Your task to perform on an android device: Open accessibility settings Image 0: 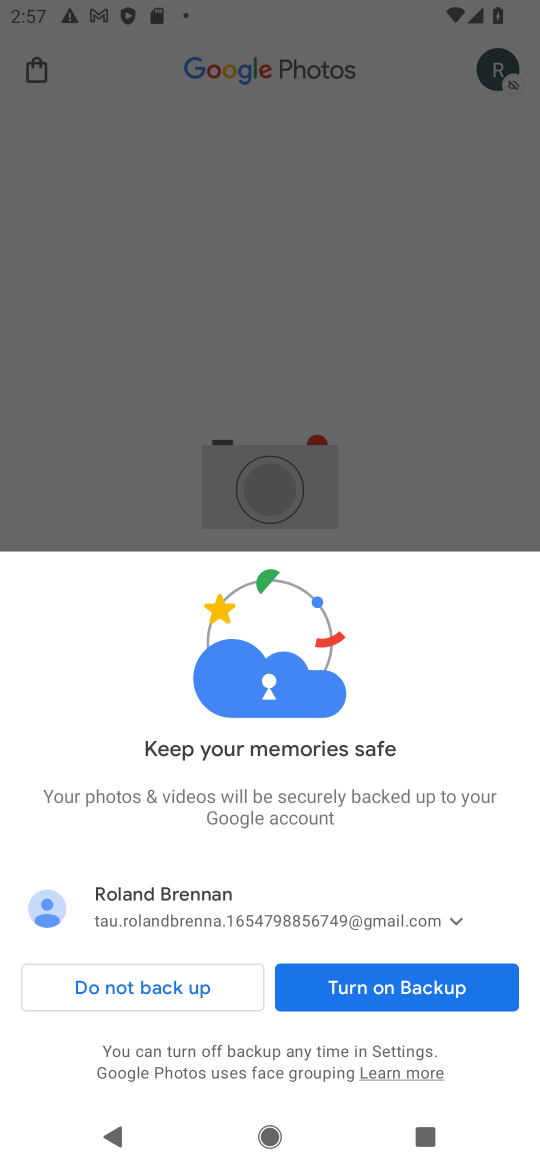
Step 0: click (391, 983)
Your task to perform on an android device: Open accessibility settings Image 1: 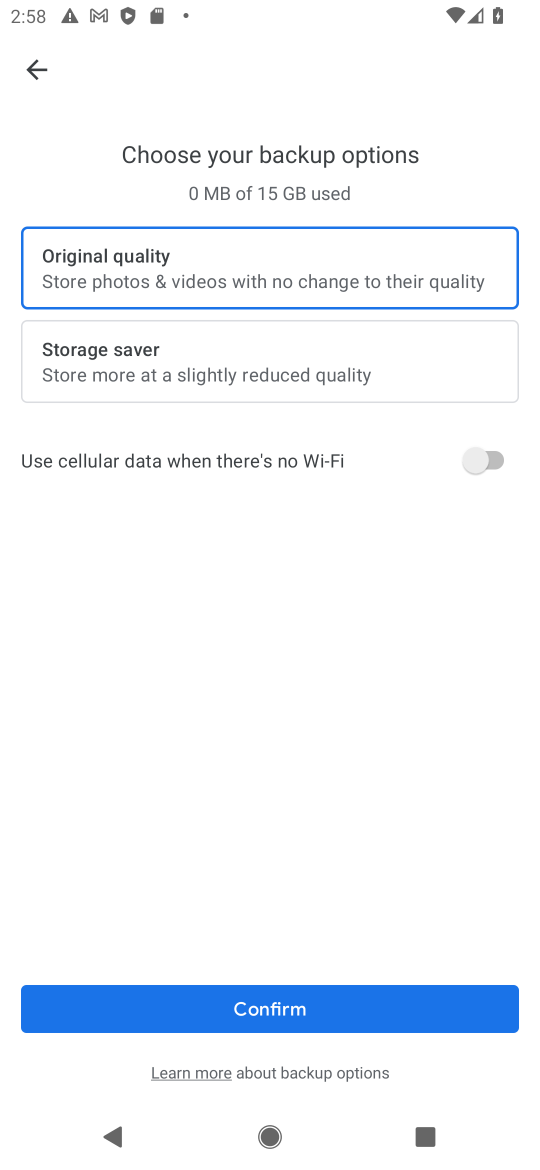
Step 1: click (340, 1000)
Your task to perform on an android device: Open accessibility settings Image 2: 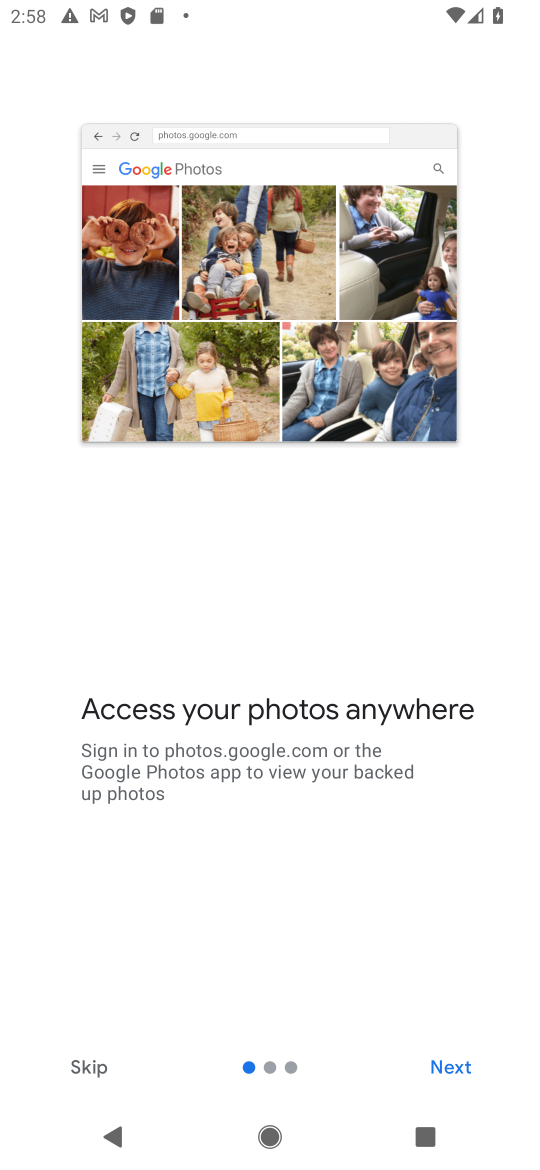
Step 2: click (440, 1064)
Your task to perform on an android device: Open accessibility settings Image 3: 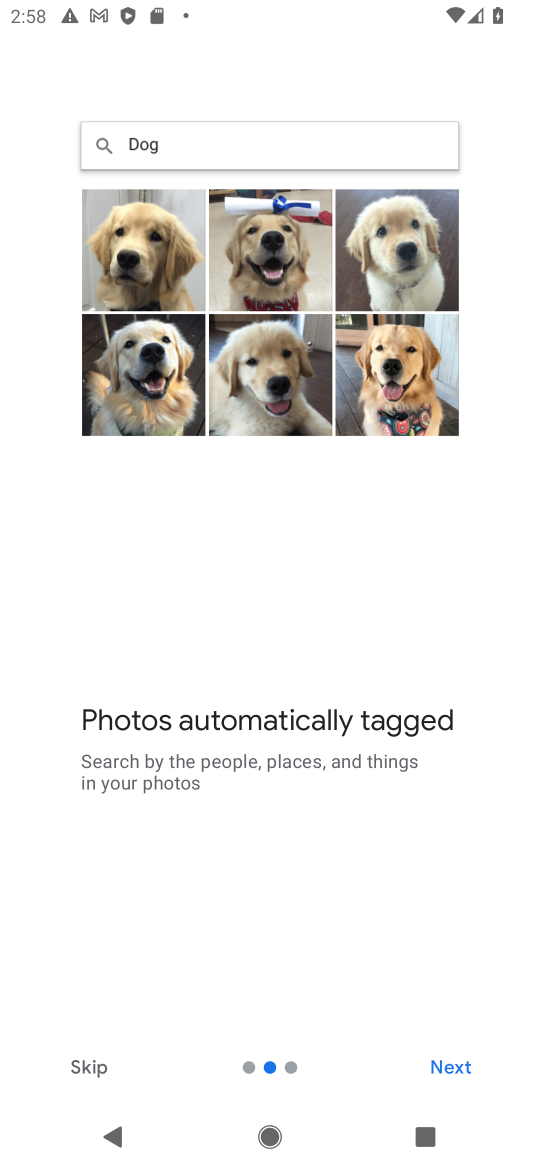
Step 3: click (474, 1050)
Your task to perform on an android device: Open accessibility settings Image 4: 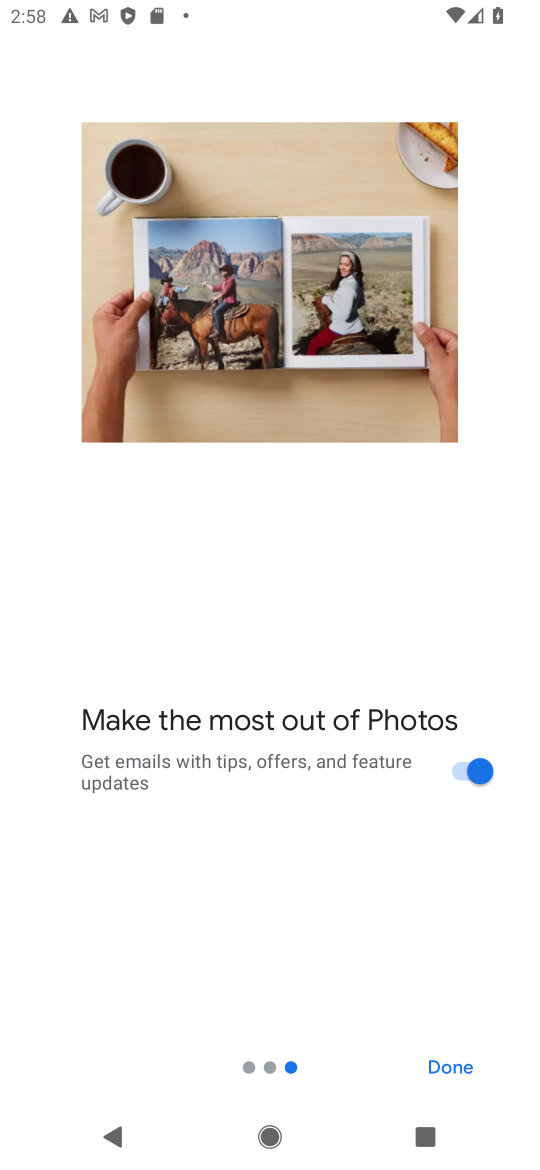
Step 4: click (459, 1064)
Your task to perform on an android device: Open accessibility settings Image 5: 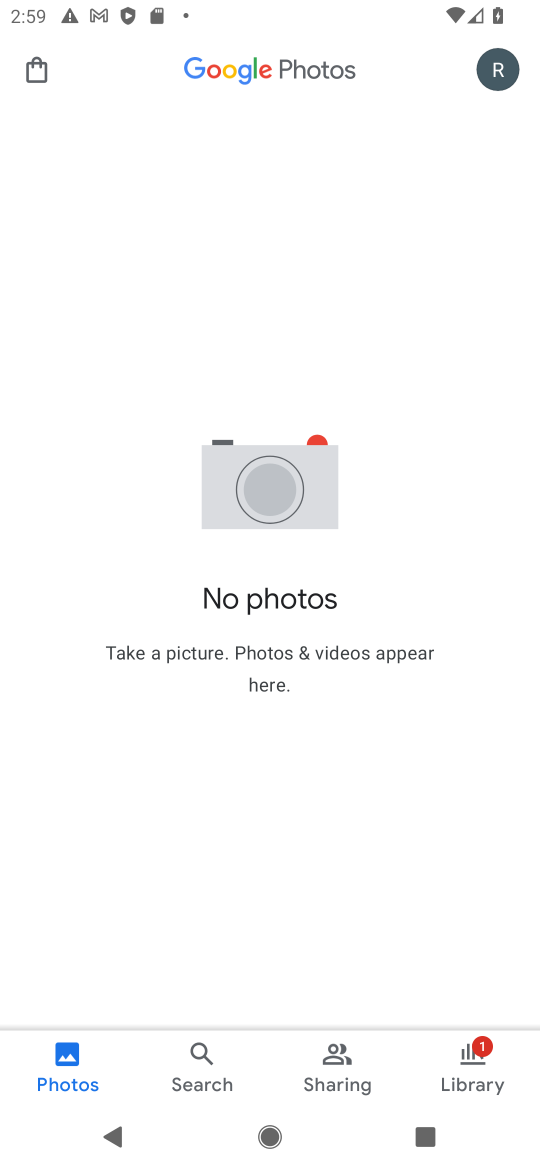
Step 5: click (502, 68)
Your task to perform on an android device: Open accessibility settings Image 6: 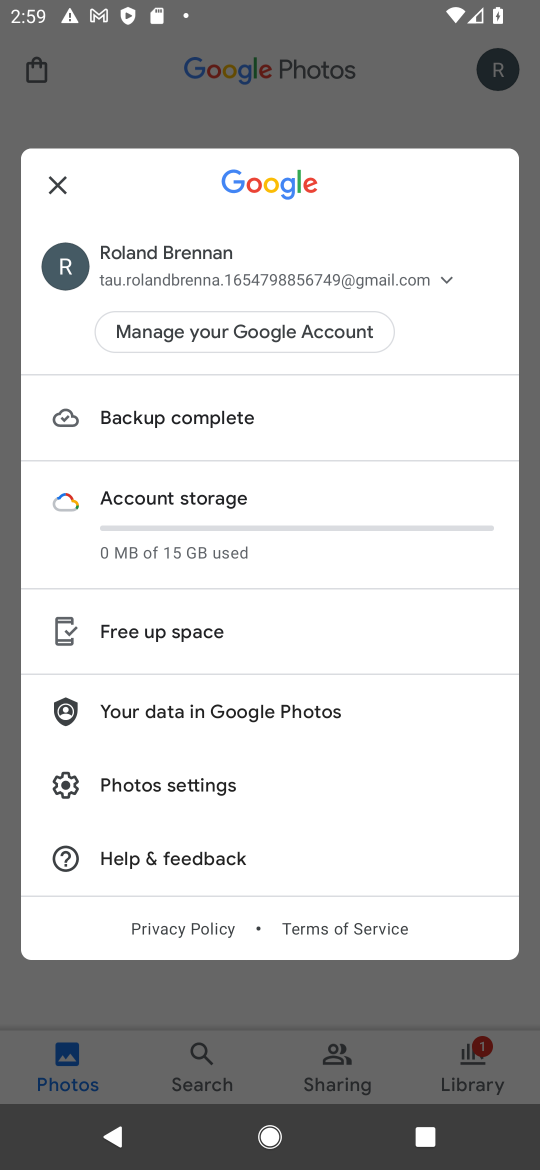
Step 6: click (157, 777)
Your task to perform on an android device: Open accessibility settings Image 7: 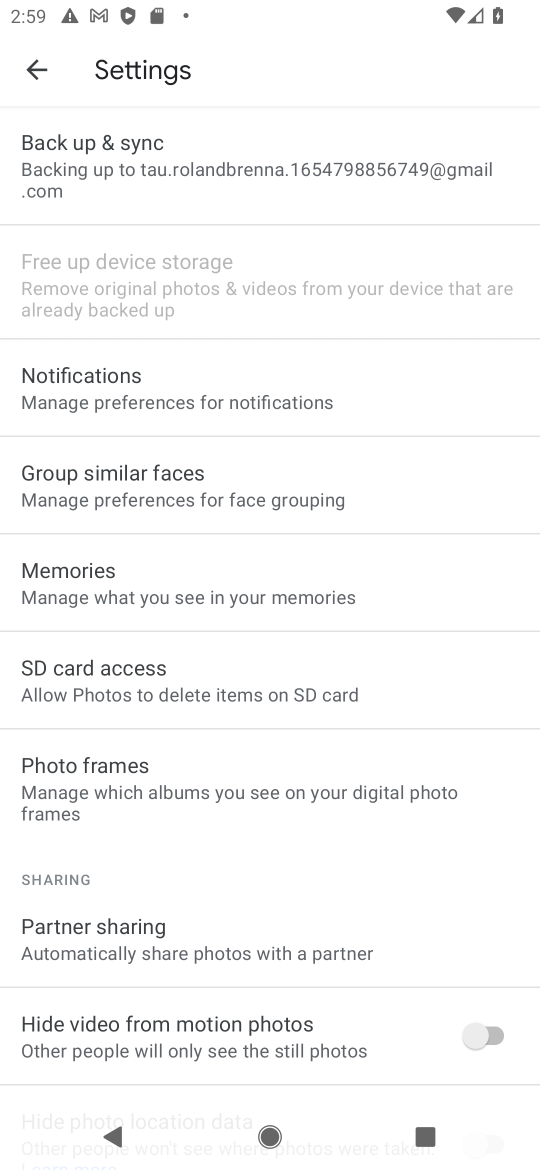
Step 7: press back button
Your task to perform on an android device: Open accessibility settings Image 8: 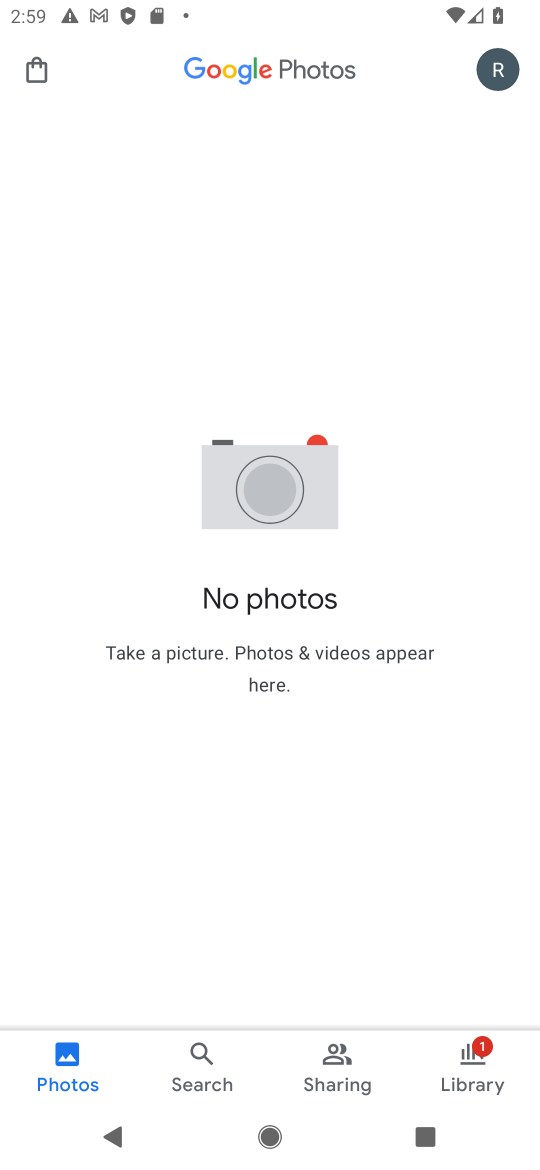
Step 8: press back button
Your task to perform on an android device: Open accessibility settings Image 9: 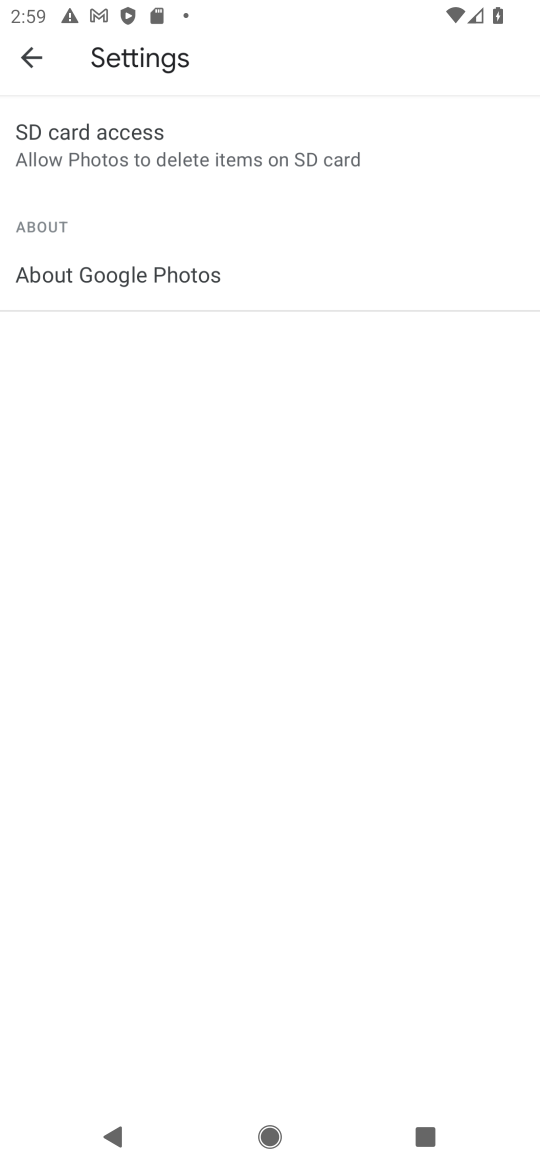
Step 9: press back button
Your task to perform on an android device: Open accessibility settings Image 10: 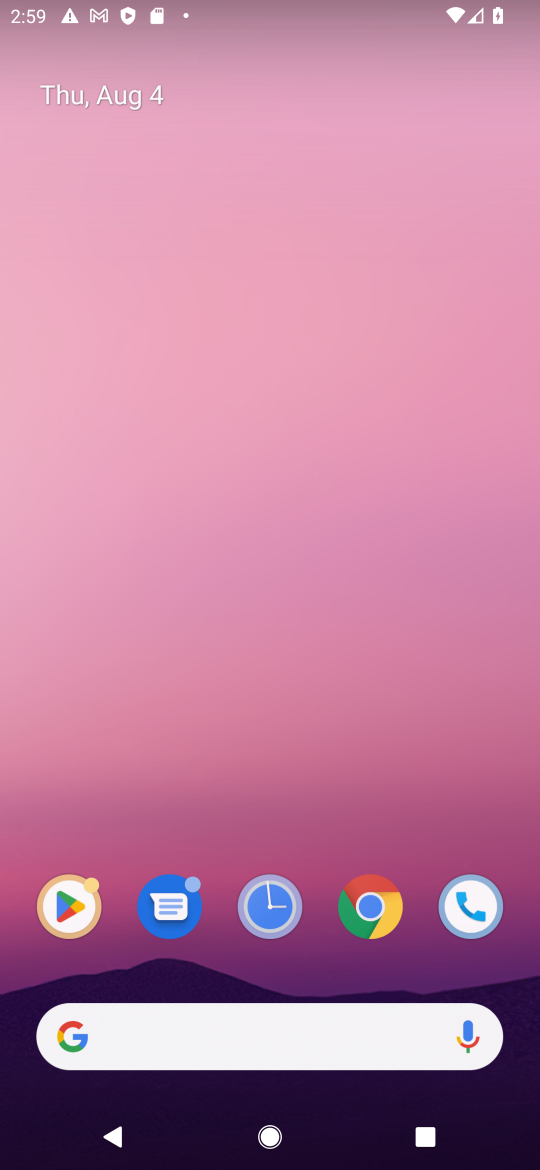
Step 10: press back button
Your task to perform on an android device: Open accessibility settings Image 11: 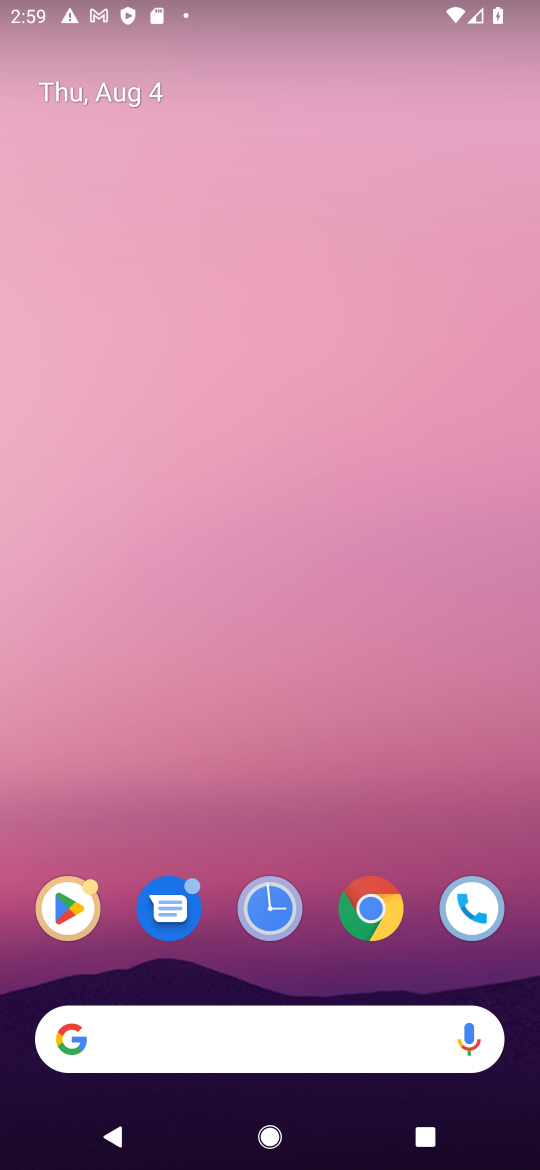
Step 11: press back button
Your task to perform on an android device: Open accessibility settings Image 12: 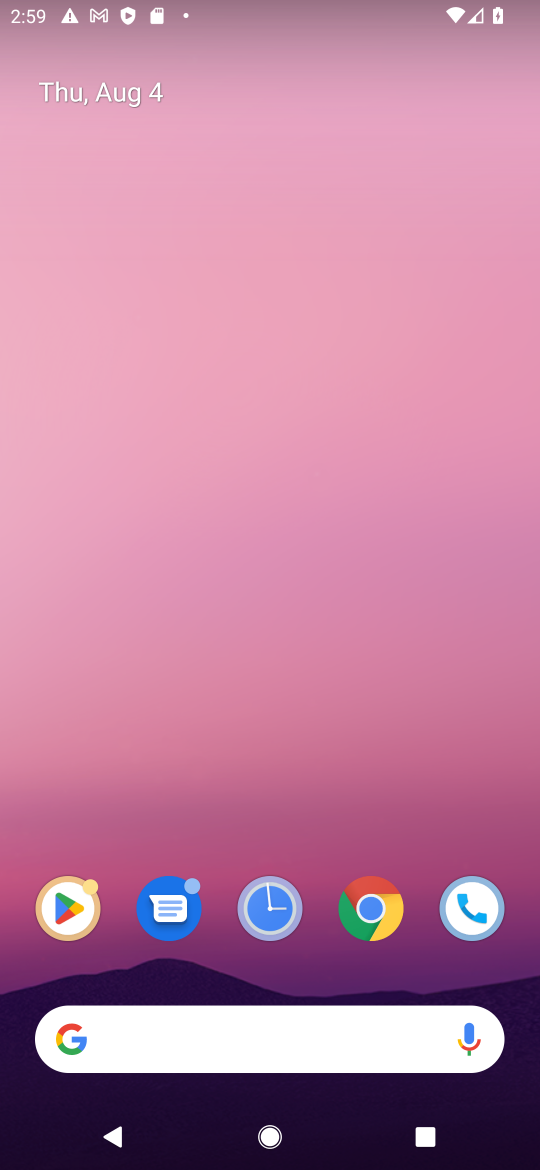
Step 12: press back button
Your task to perform on an android device: Open accessibility settings Image 13: 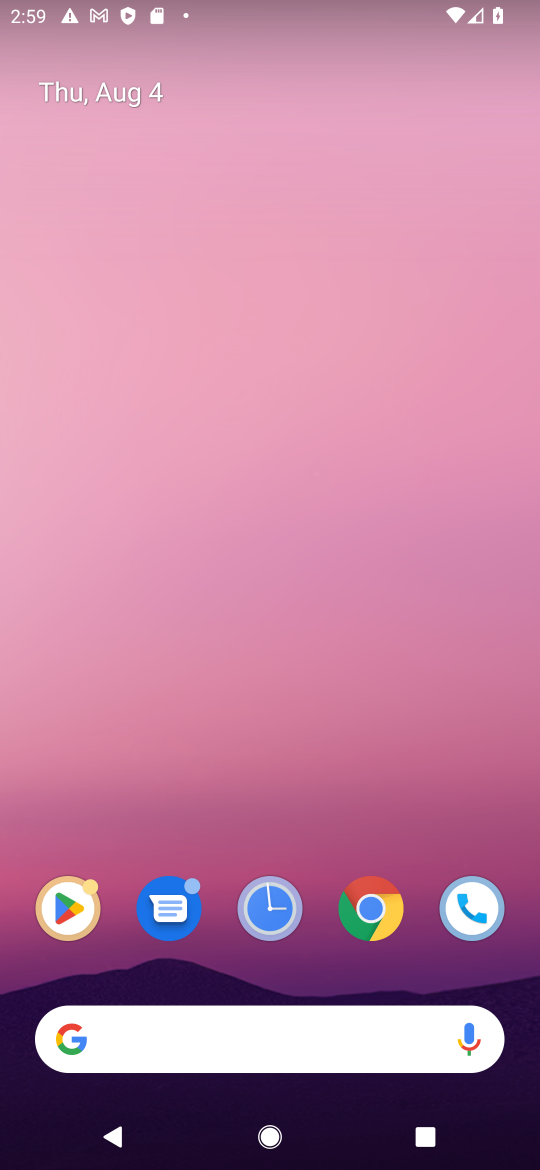
Step 13: drag from (268, 802) to (248, 14)
Your task to perform on an android device: Open accessibility settings Image 14: 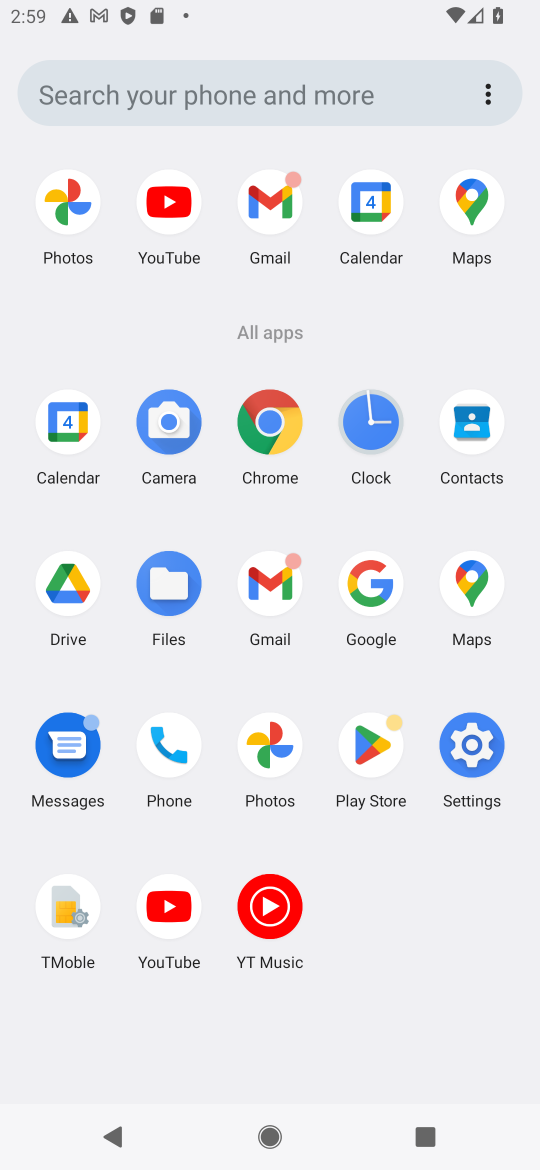
Step 14: click (482, 752)
Your task to perform on an android device: Open accessibility settings Image 15: 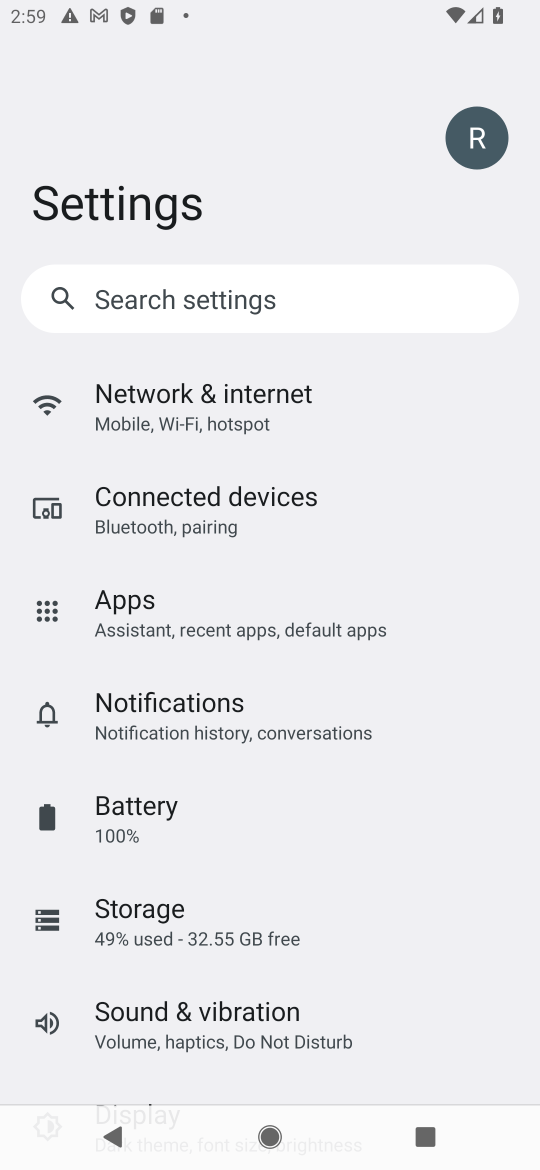
Step 15: drag from (244, 1000) to (137, 465)
Your task to perform on an android device: Open accessibility settings Image 16: 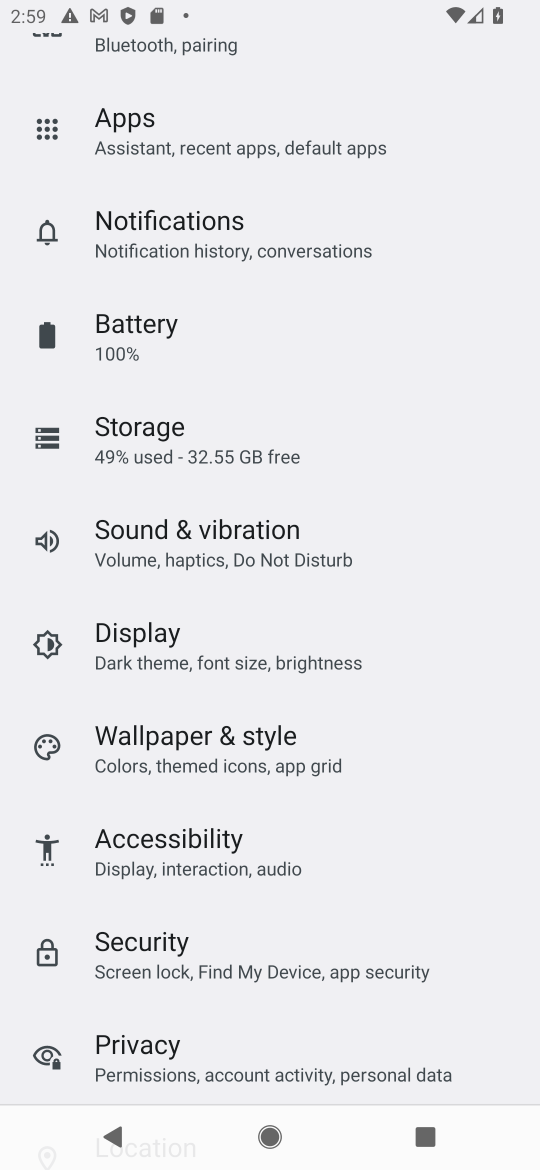
Step 16: click (158, 862)
Your task to perform on an android device: Open accessibility settings Image 17: 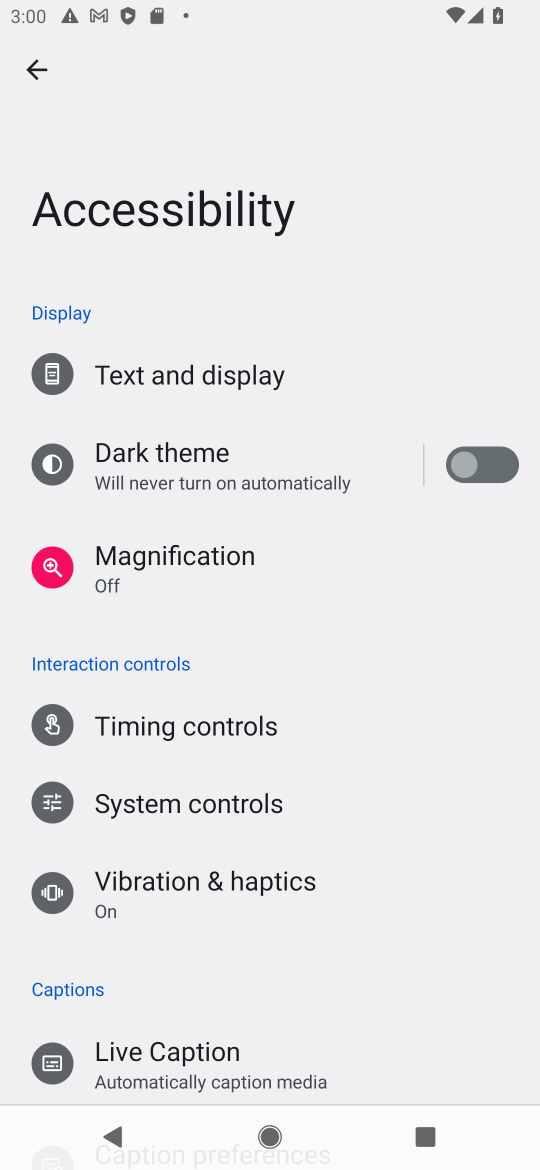
Step 17: task complete